Your task to perform on an android device: turn off location Image 0: 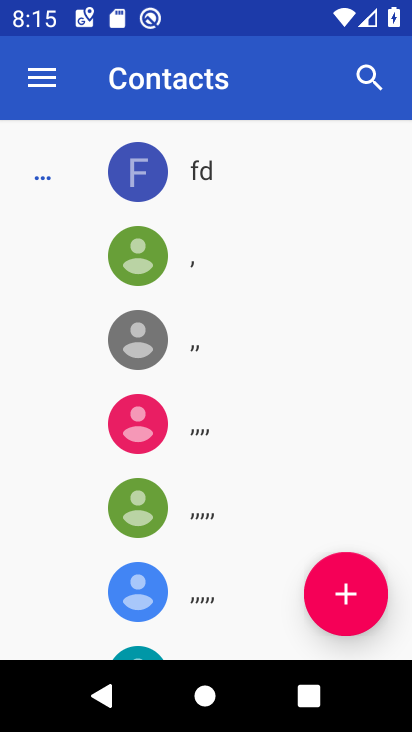
Step 0: press home button
Your task to perform on an android device: turn off location Image 1: 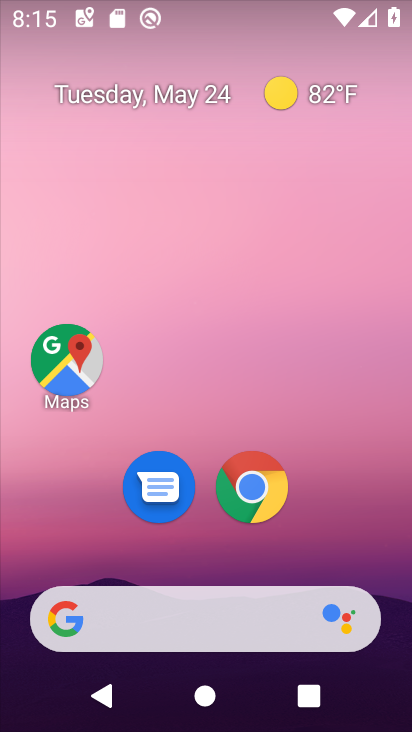
Step 1: drag from (319, 525) to (306, 270)
Your task to perform on an android device: turn off location Image 2: 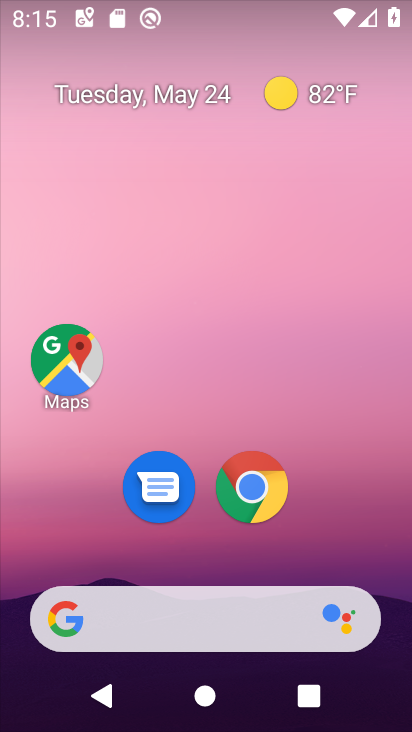
Step 2: drag from (290, 561) to (370, 178)
Your task to perform on an android device: turn off location Image 3: 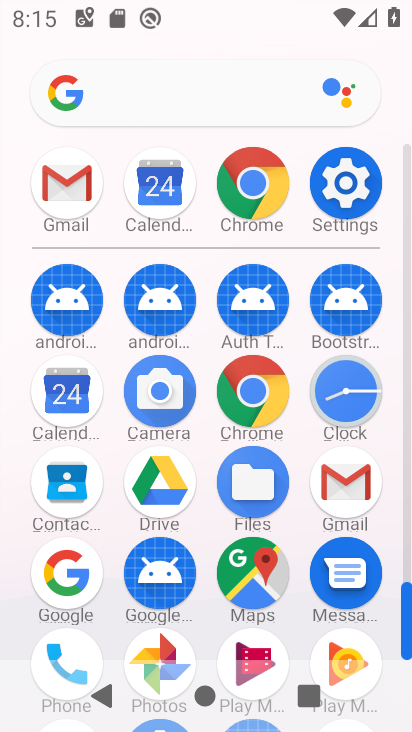
Step 3: click (350, 198)
Your task to perform on an android device: turn off location Image 4: 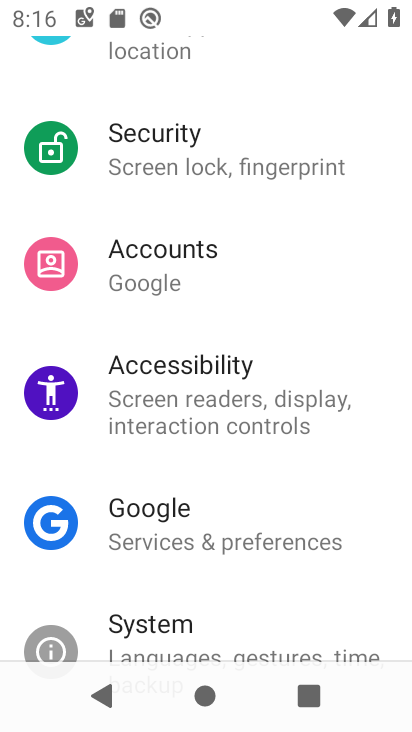
Step 4: drag from (296, 577) to (287, 259)
Your task to perform on an android device: turn off location Image 5: 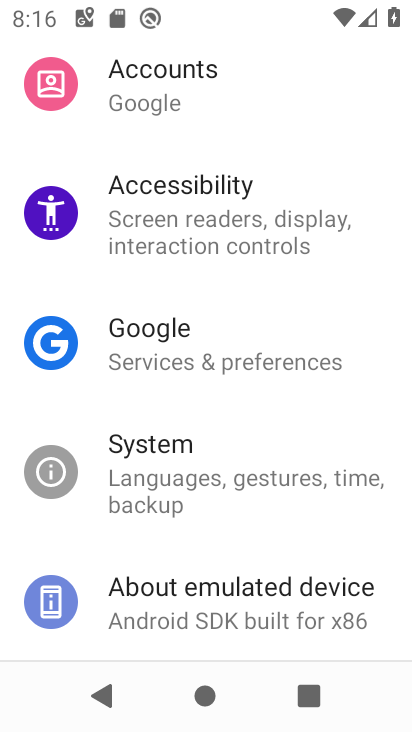
Step 5: drag from (258, 150) to (267, 494)
Your task to perform on an android device: turn off location Image 6: 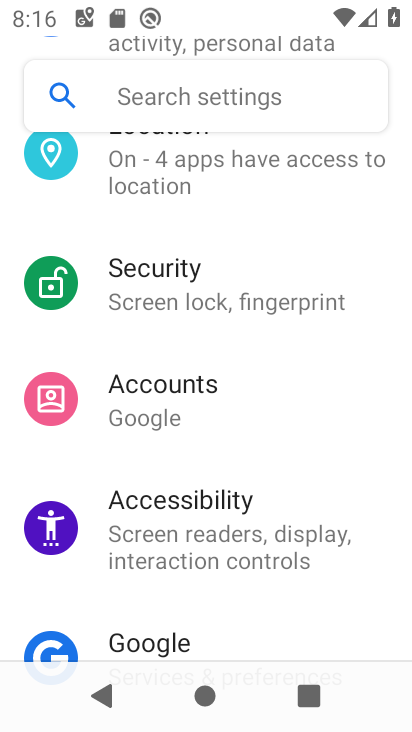
Step 6: drag from (202, 197) to (183, 489)
Your task to perform on an android device: turn off location Image 7: 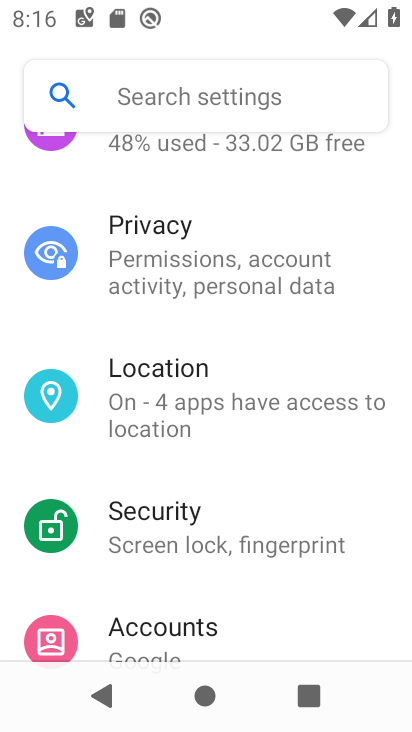
Step 7: click (144, 392)
Your task to perform on an android device: turn off location Image 8: 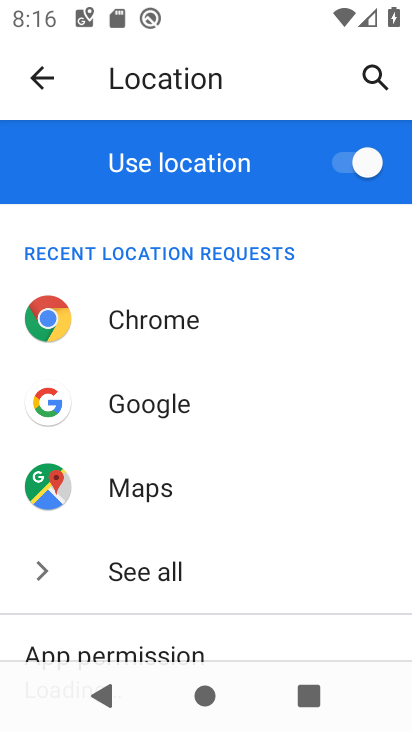
Step 8: drag from (215, 593) to (242, 309)
Your task to perform on an android device: turn off location Image 9: 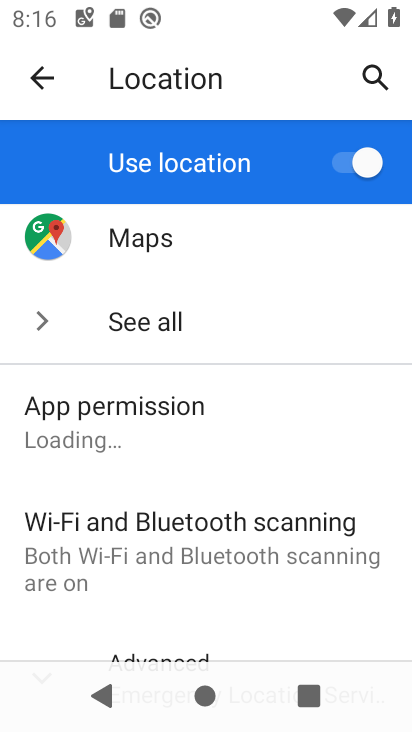
Step 9: drag from (241, 578) to (306, 299)
Your task to perform on an android device: turn off location Image 10: 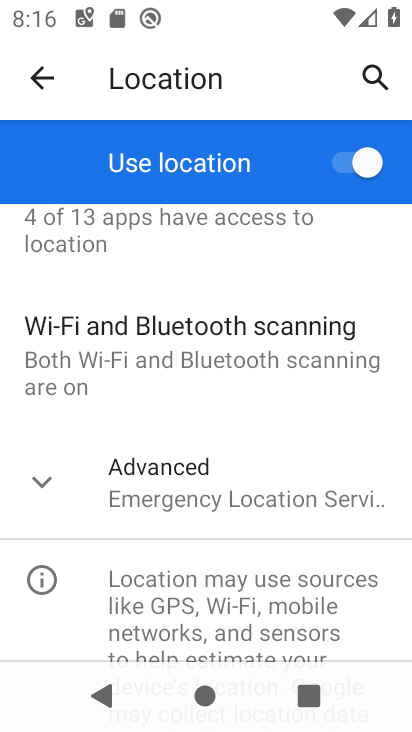
Step 10: click (334, 162)
Your task to perform on an android device: turn off location Image 11: 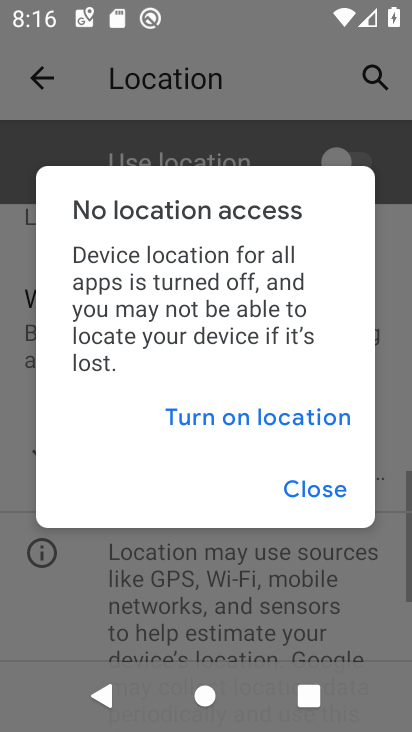
Step 11: task complete